Your task to perform on an android device: turn on sleep mode Image 0: 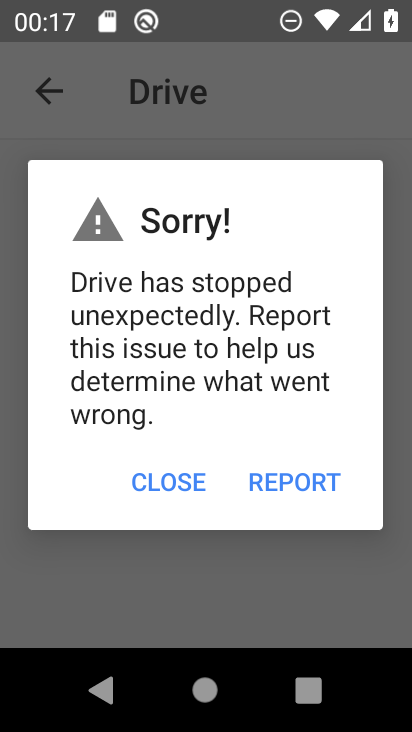
Step 0: press home button
Your task to perform on an android device: turn on sleep mode Image 1: 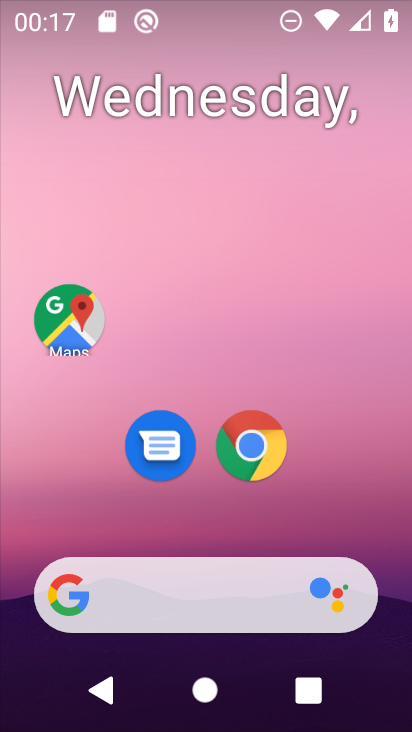
Step 1: drag from (204, 530) to (231, 13)
Your task to perform on an android device: turn on sleep mode Image 2: 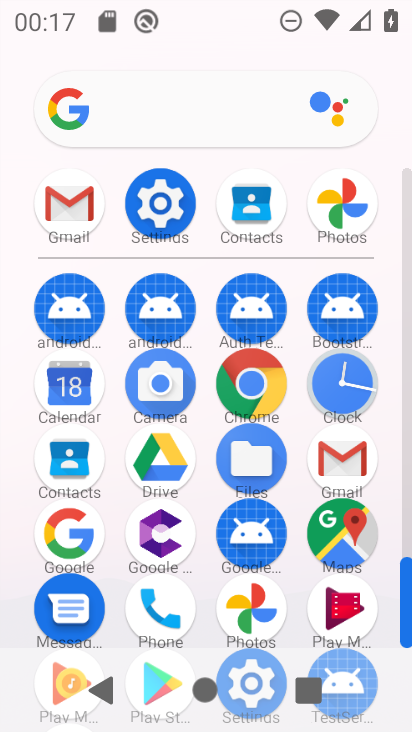
Step 2: click (147, 199)
Your task to perform on an android device: turn on sleep mode Image 3: 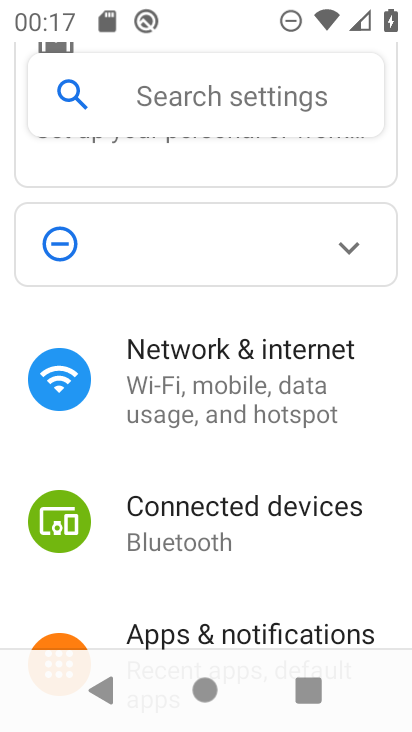
Step 3: task complete